Your task to perform on an android device: change timer sound Image 0: 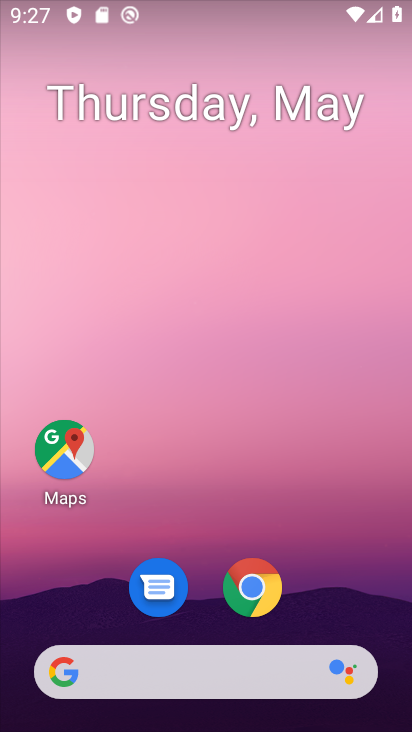
Step 0: press home button
Your task to perform on an android device: change timer sound Image 1: 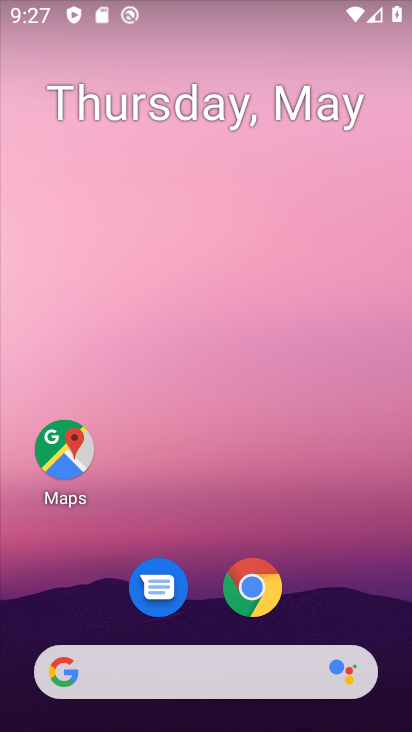
Step 1: drag from (358, 605) to (325, 25)
Your task to perform on an android device: change timer sound Image 2: 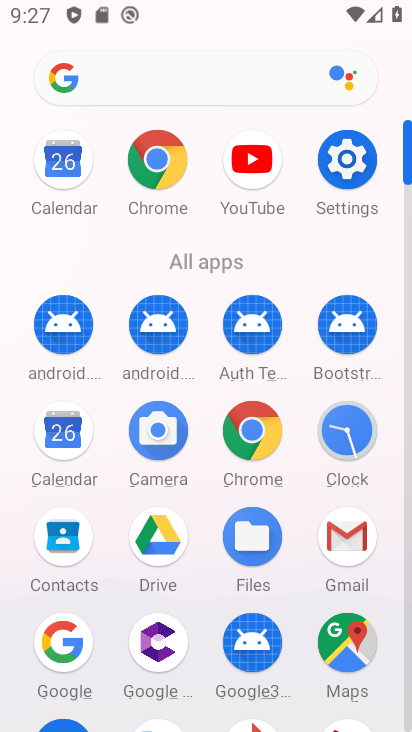
Step 2: click (333, 431)
Your task to perform on an android device: change timer sound Image 3: 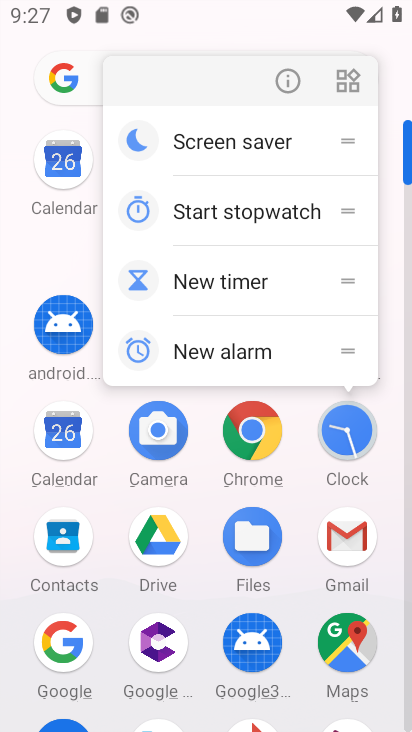
Step 3: click (333, 431)
Your task to perform on an android device: change timer sound Image 4: 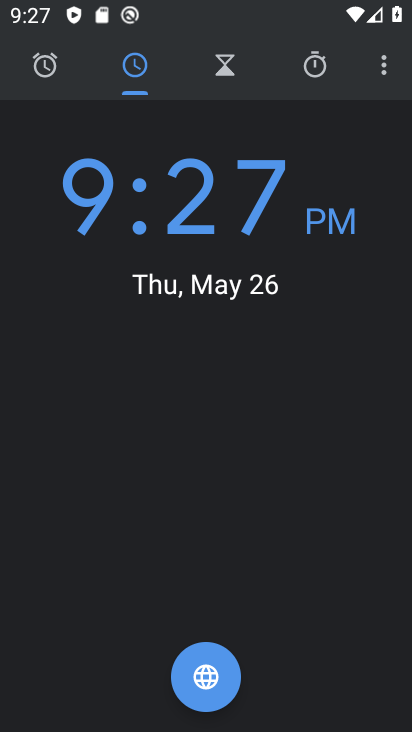
Step 4: click (384, 66)
Your task to perform on an android device: change timer sound Image 5: 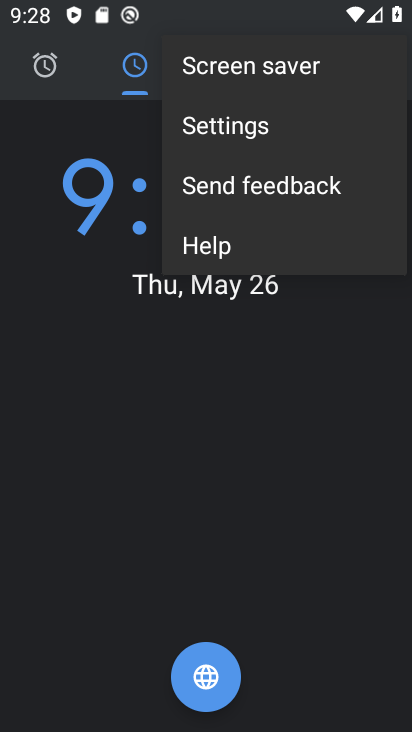
Step 5: click (213, 130)
Your task to perform on an android device: change timer sound Image 6: 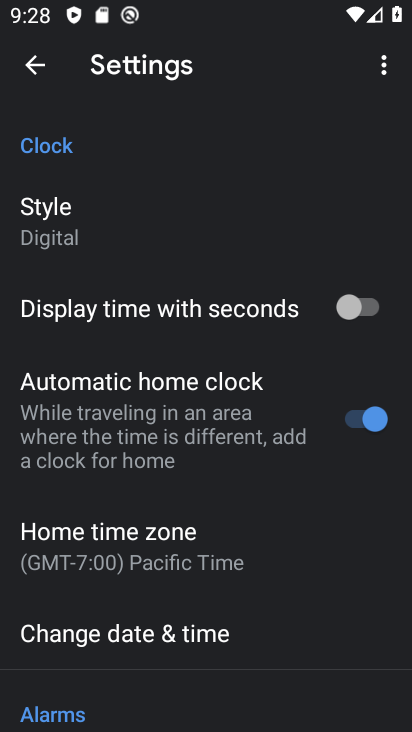
Step 6: drag from (223, 477) to (207, 99)
Your task to perform on an android device: change timer sound Image 7: 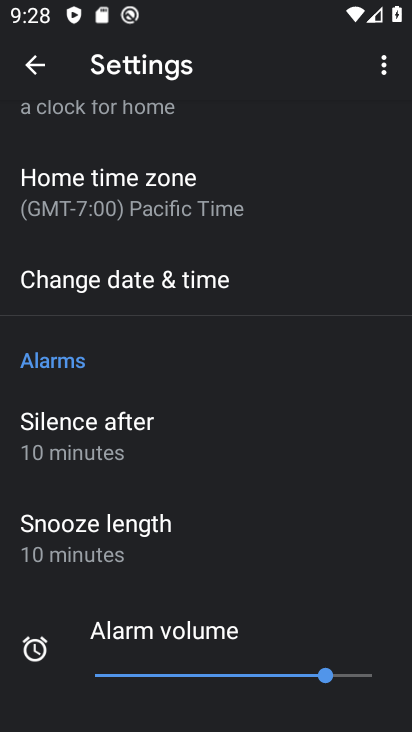
Step 7: drag from (192, 393) to (179, 162)
Your task to perform on an android device: change timer sound Image 8: 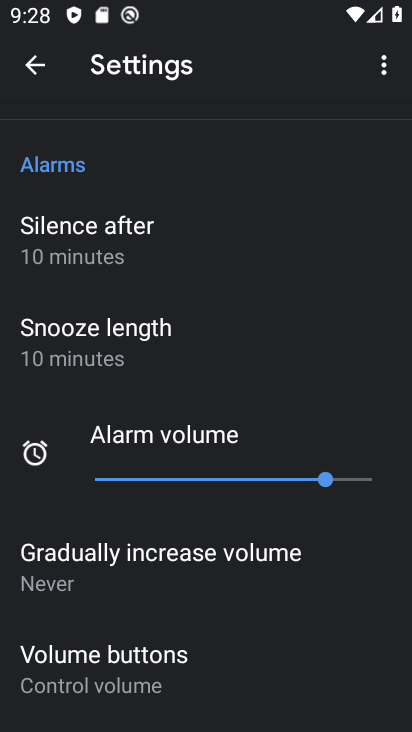
Step 8: drag from (179, 482) to (202, 41)
Your task to perform on an android device: change timer sound Image 9: 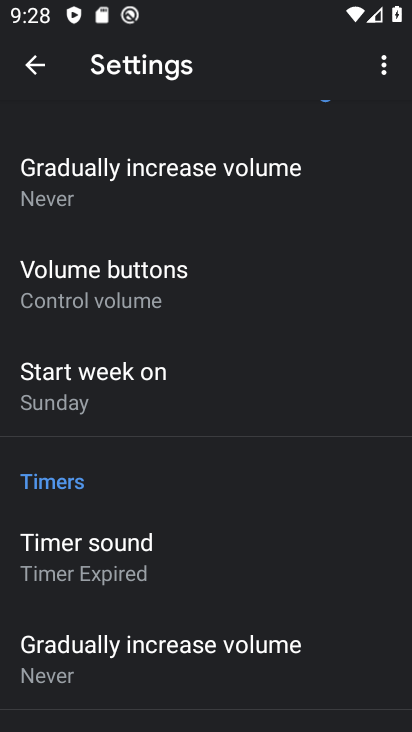
Step 9: click (57, 567)
Your task to perform on an android device: change timer sound Image 10: 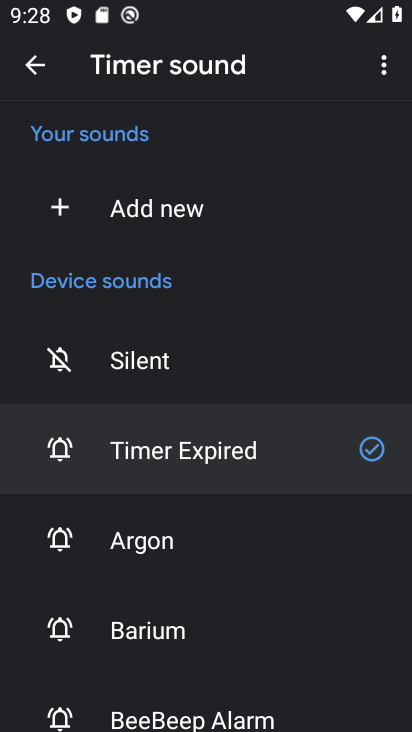
Step 10: click (142, 553)
Your task to perform on an android device: change timer sound Image 11: 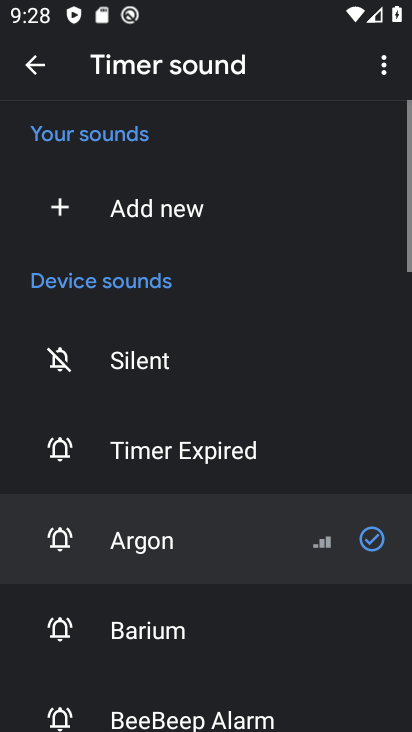
Step 11: task complete